Your task to perform on an android device: open wifi settings Image 0: 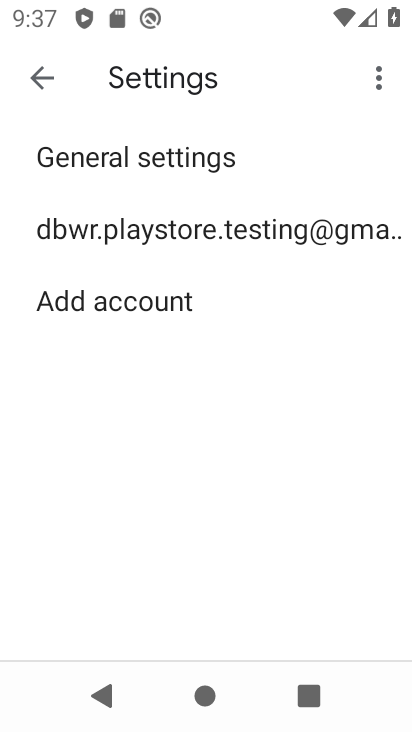
Step 0: press back button
Your task to perform on an android device: open wifi settings Image 1: 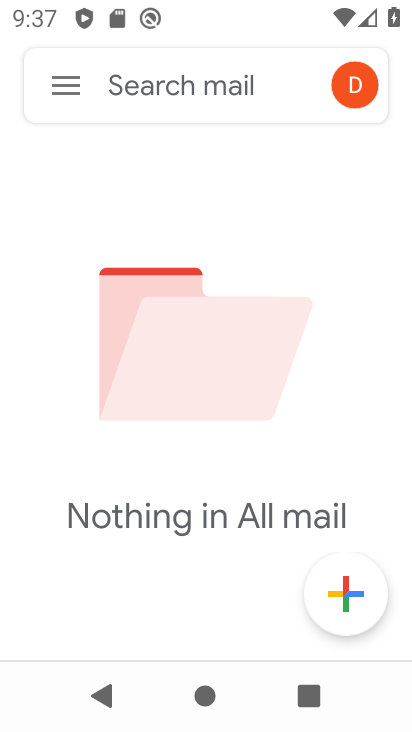
Step 1: press back button
Your task to perform on an android device: open wifi settings Image 2: 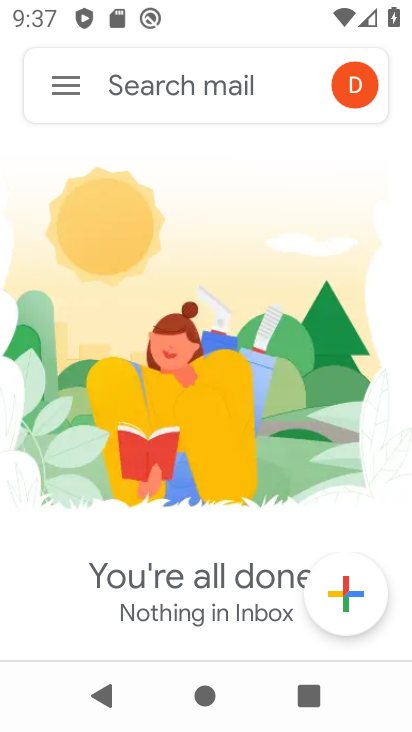
Step 2: press back button
Your task to perform on an android device: open wifi settings Image 3: 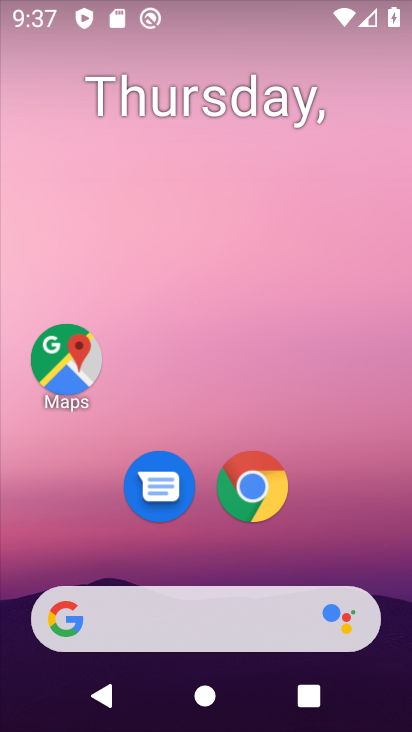
Step 3: drag from (138, 14) to (200, 512)
Your task to perform on an android device: open wifi settings Image 4: 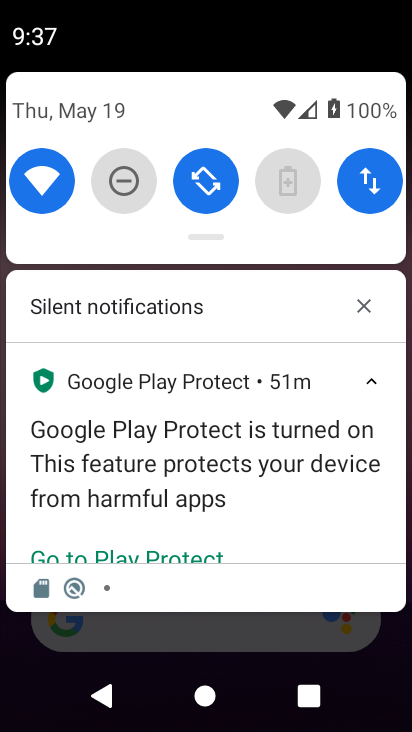
Step 4: click (48, 177)
Your task to perform on an android device: open wifi settings Image 5: 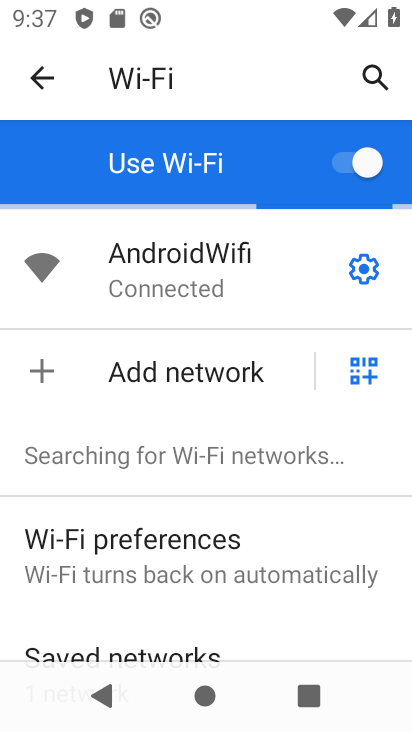
Step 5: task complete